Your task to perform on an android device: turn pop-ups off in chrome Image 0: 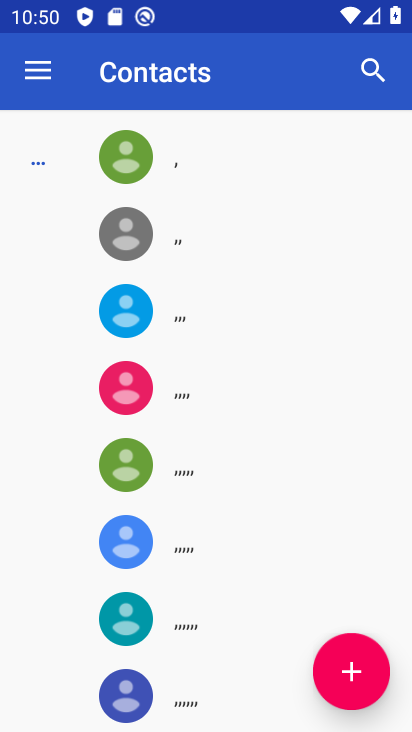
Step 0: press home button
Your task to perform on an android device: turn pop-ups off in chrome Image 1: 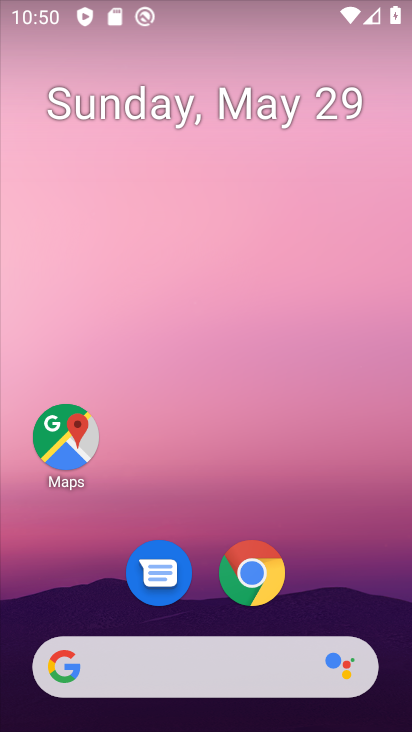
Step 1: click (251, 575)
Your task to perform on an android device: turn pop-ups off in chrome Image 2: 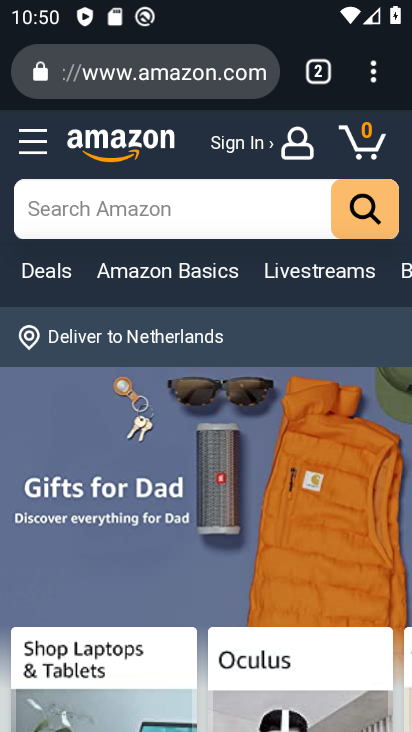
Step 2: drag from (374, 80) to (239, 554)
Your task to perform on an android device: turn pop-ups off in chrome Image 3: 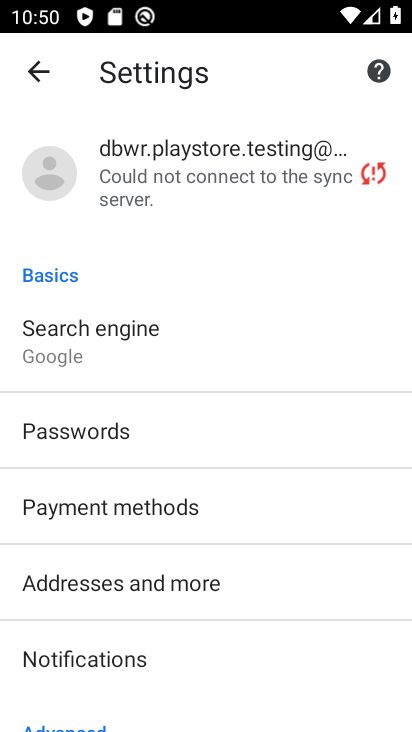
Step 3: drag from (310, 655) to (296, 296)
Your task to perform on an android device: turn pop-ups off in chrome Image 4: 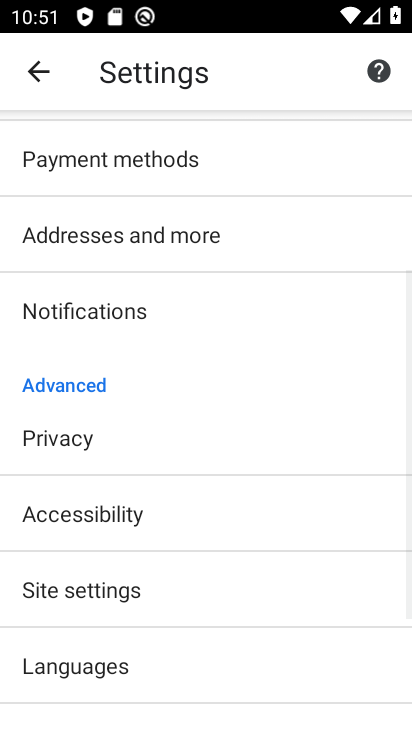
Step 4: click (96, 589)
Your task to perform on an android device: turn pop-ups off in chrome Image 5: 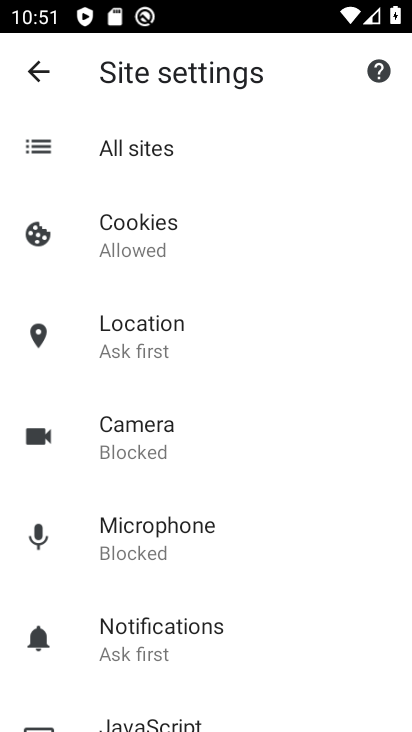
Step 5: drag from (286, 381) to (282, 168)
Your task to perform on an android device: turn pop-ups off in chrome Image 6: 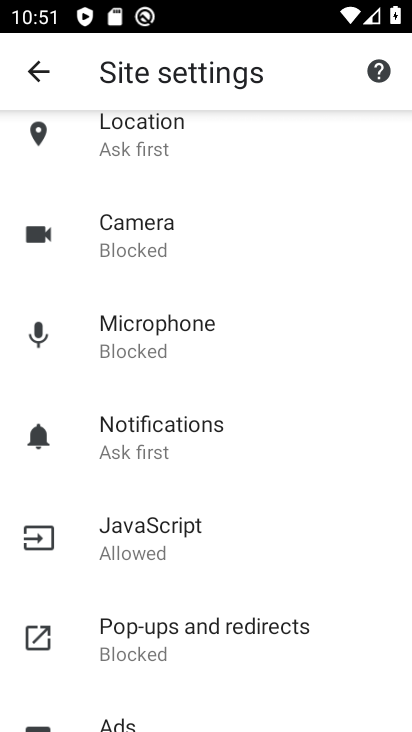
Step 6: click (250, 633)
Your task to perform on an android device: turn pop-ups off in chrome Image 7: 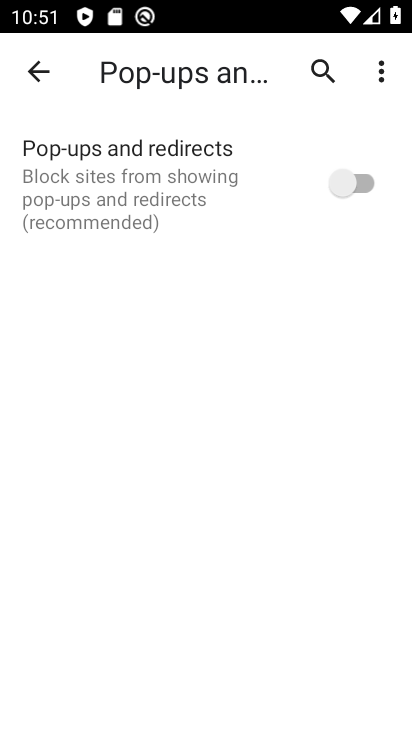
Step 7: task complete